Your task to perform on an android device: open sync settings in chrome Image 0: 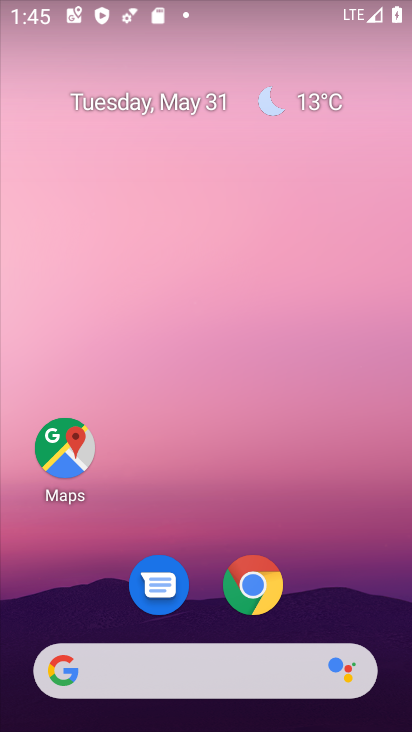
Step 0: click (255, 571)
Your task to perform on an android device: open sync settings in chrome Image 1: 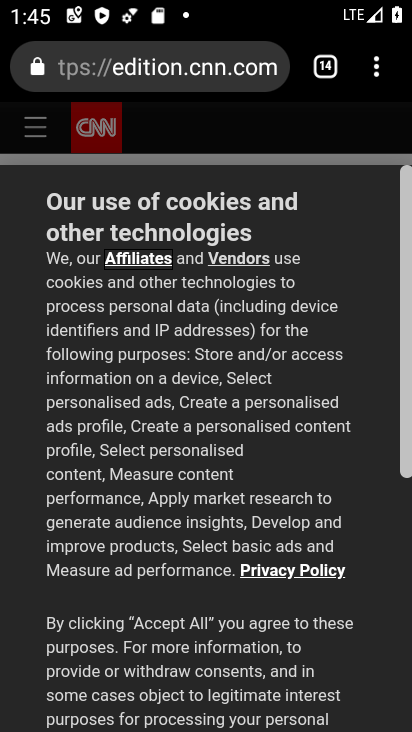
Step 1: click (377, 74)
Your task to perform on an android device: open sync settings in chrome Image 2: 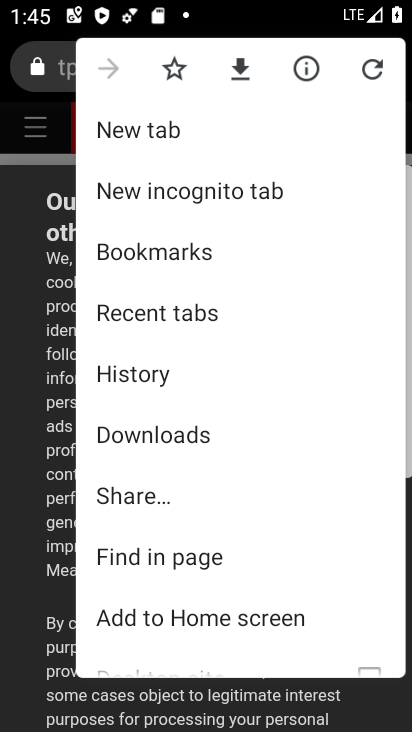
Step 2: drag from (249, 483) to (220, 231)
Your task to perform on an android device: open sync settings in chrome Image 3: 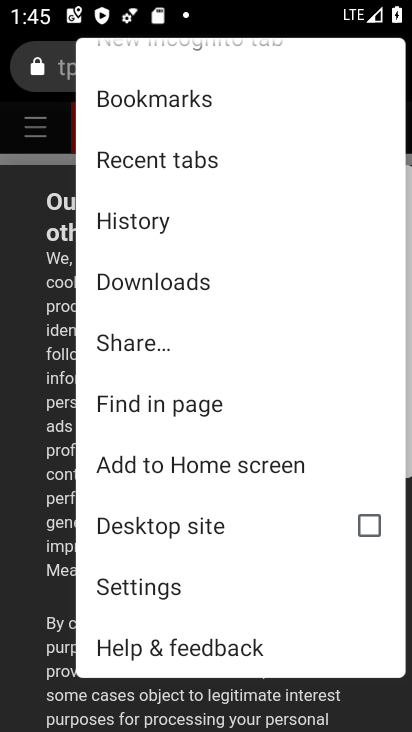
Step 3: click (190, 570)
Your task to perform on an android device: open sync settings in chrome Image 4: 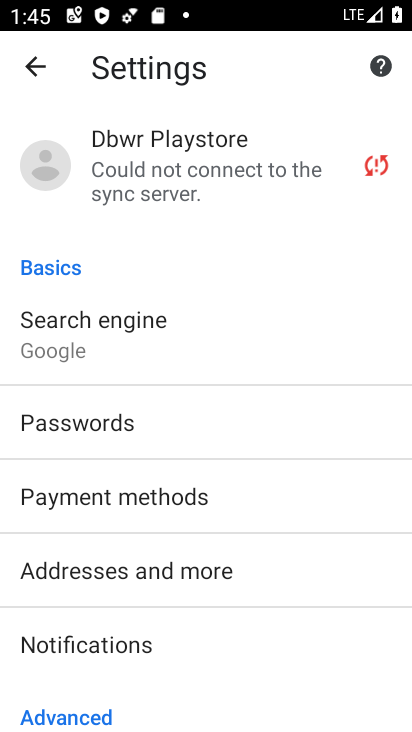
Step 4: click (213, 165)
Your task to perform on an android device: open sync settings in chrome Image 5: 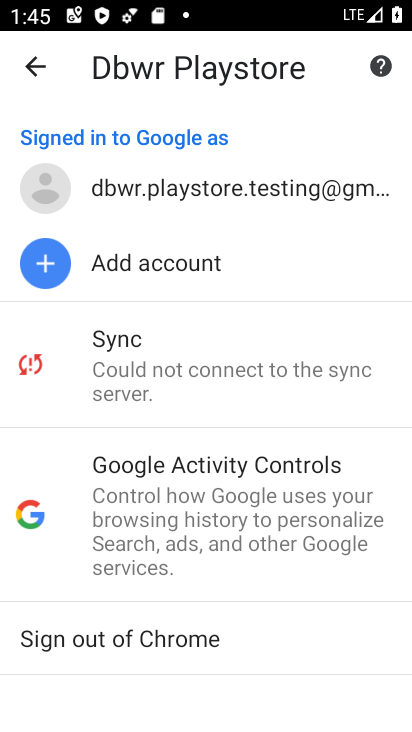
Step 5: click (192, 346)
Your task to perform on an android device: open sync settings in chrome Image 6: 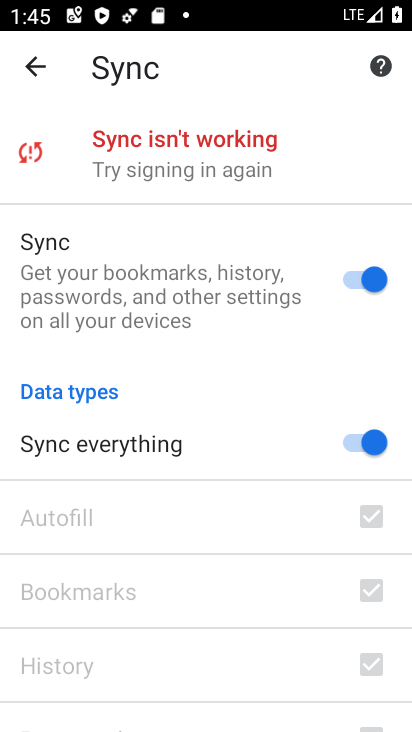
Step 6: task complete